Your task to perform on an android device: Check the weather Image 0: 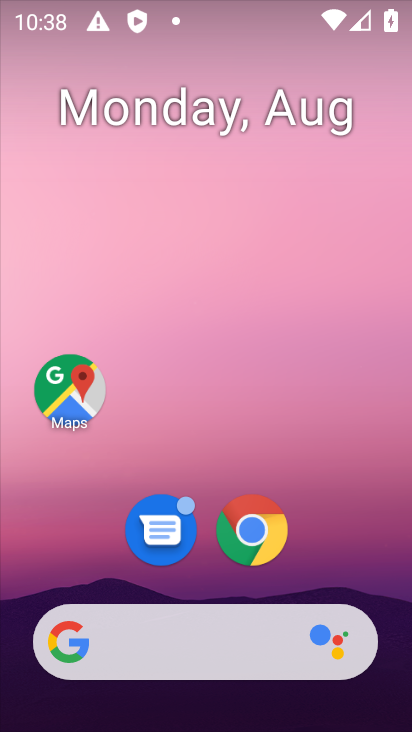
Step 0: click (173, 221)
Your task to perform on an android device: Check the weather Image 1: 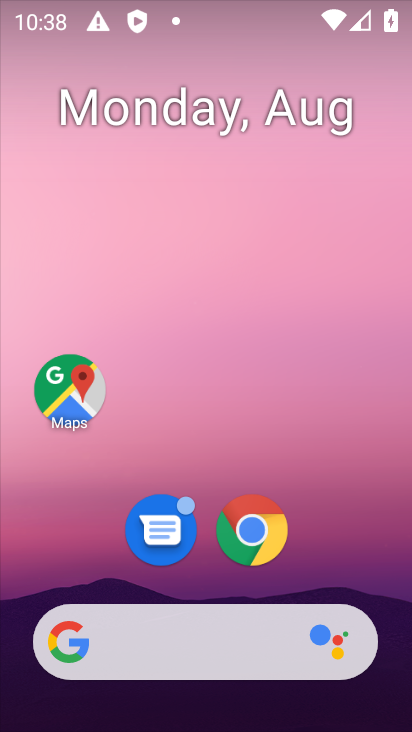
Step 1: drag from (203, 502) to (186, 161)
Your task to perform on an android device: Check the weather Image 2: 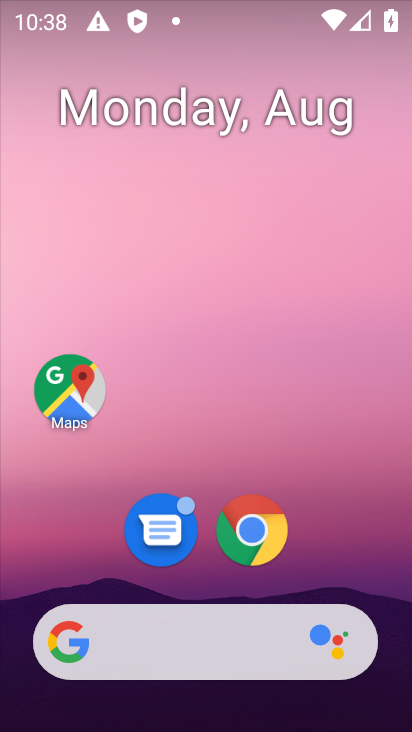
Step 2: drag from (249, 510) to (229, 121)
Your task to perform on an android device: Check the weather Image 3: 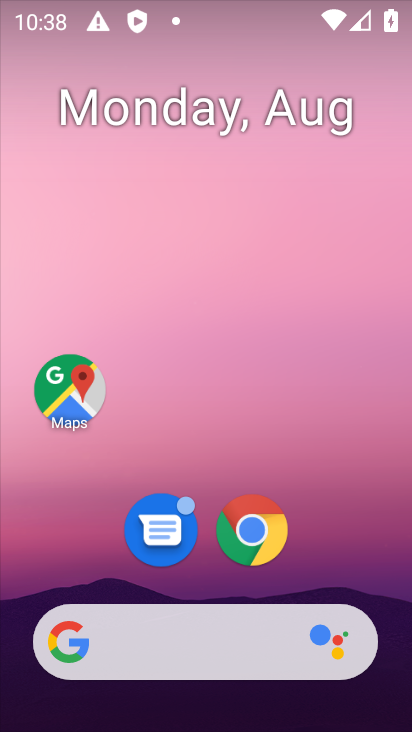
Step 3: drag from (244, 429) to (231, 177)
Your task to perform on an android device: Check the weather Image 4: 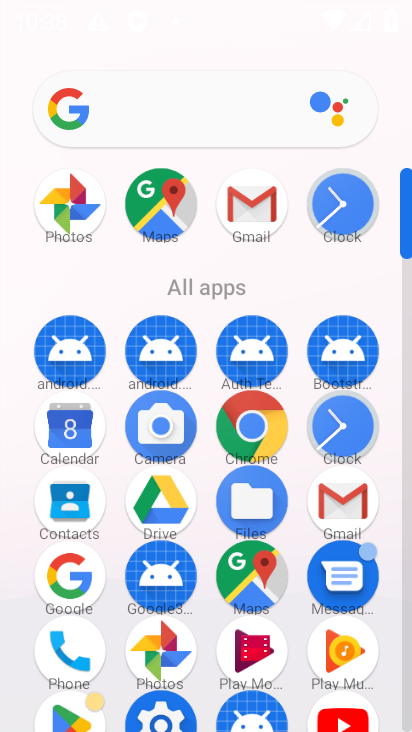
Step 4: drag from (204, 530) to (204, 264)
Your task to perform on an android device: Check the weather Image 5: 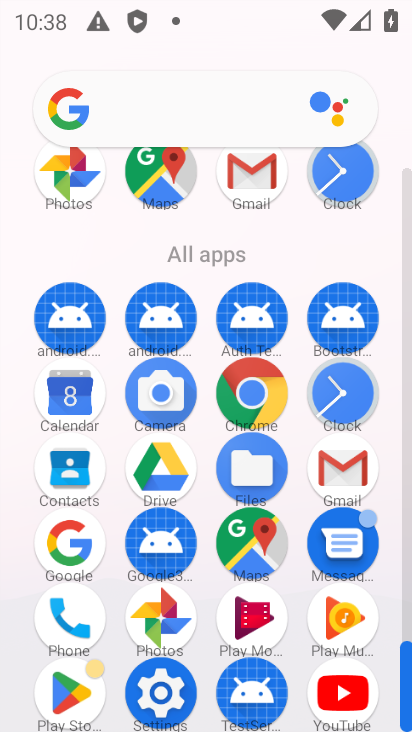
Step 5: click (249, 414)
Your task to perform on an android device: Check the weather Image 6: 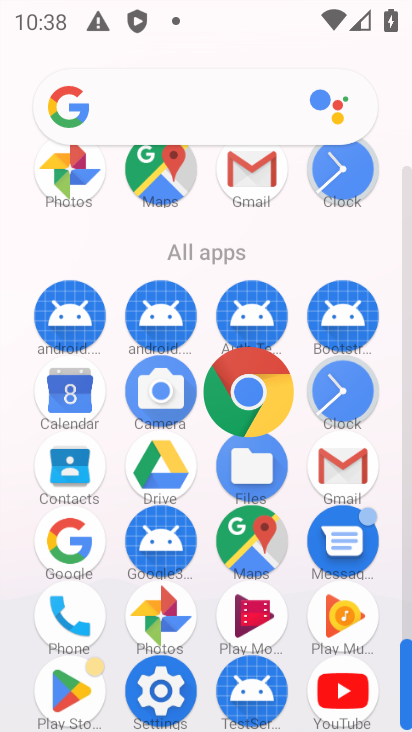
Step 6: click (245, 399)
Your task to perform on an android device: Check the weather Image 7: 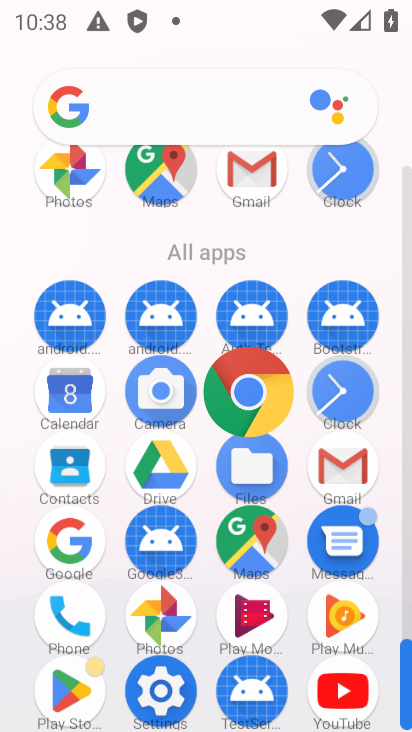
Step 7: click (246, 397)
Your task to perform on an android device: Check the weather Image 8: 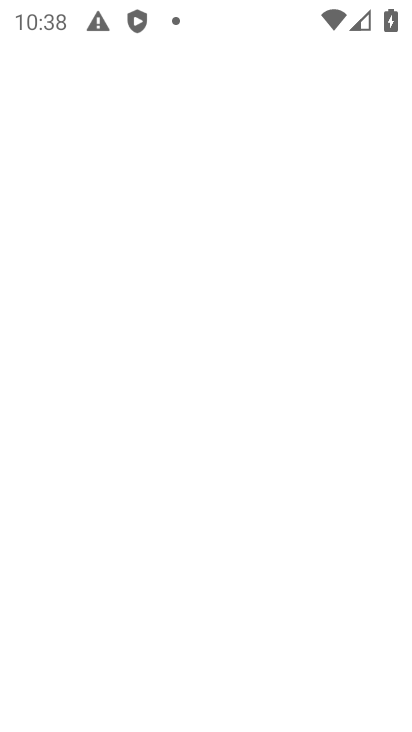
Step 8: click (246, 397)
Your task to perform on an android device: Check the weather Image 9: 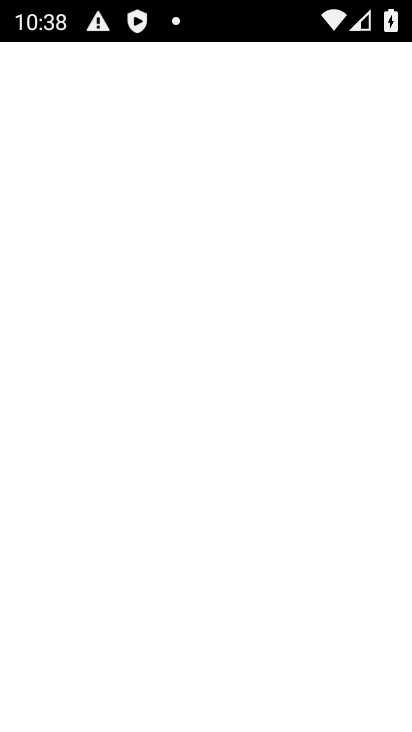
Step 9: click (245, 396)
Your task to perform on an android device: Check the weather Image 10: 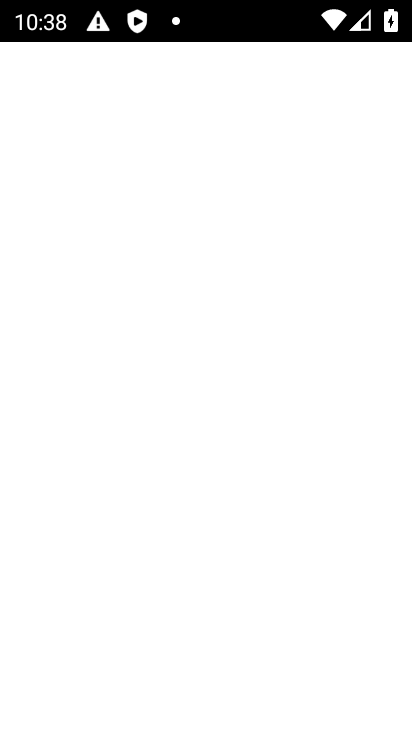
Step 10: click (245, 396)
Your task to perform on an android device: Check the weather Image 11: 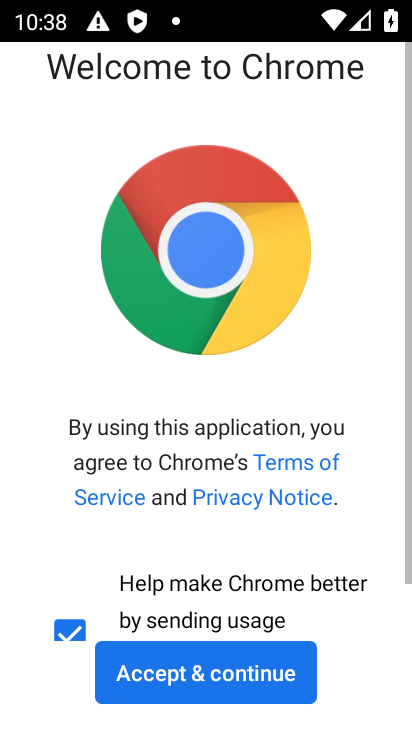
Step 11: click (222, 660)
Your task to perform on an android device: Check the weather Image 12: 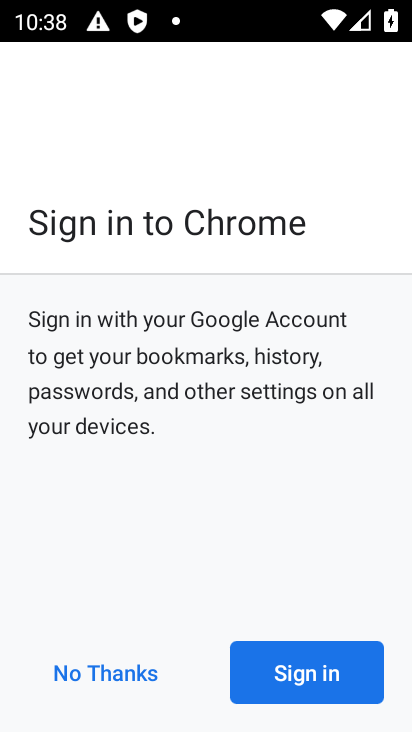
Step 12: click (267, 673)
Your task to perform on an android device: Check the weather Image 13: 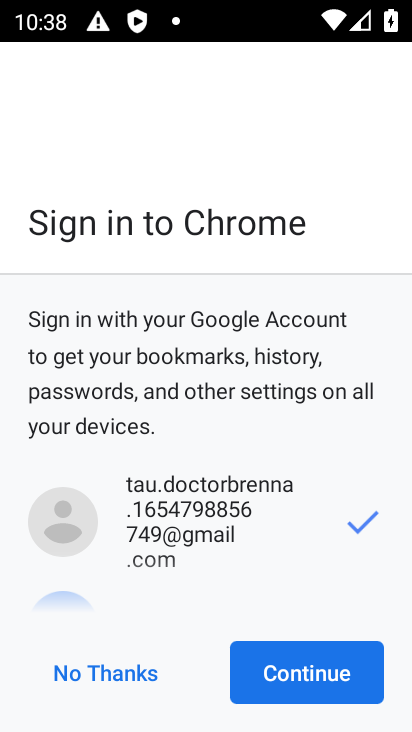
Step 13: click (275, 660)
Your task to perform on an android device: Check the weather Image 14: 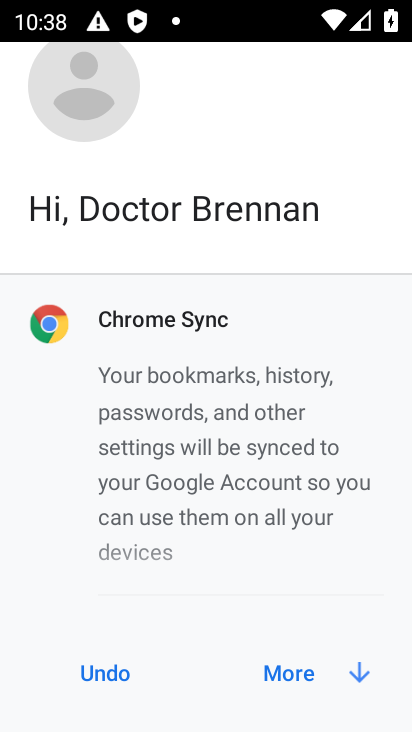
Step 14: click (276, 667)
Your task to perform on an android device: Check the weather Image 15: 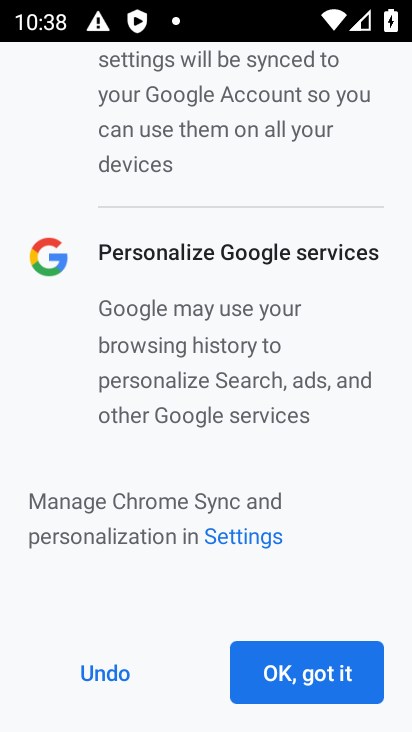
Step 15: click (82, 662)
Your task to perform on an android device: Check the weather Image 16: 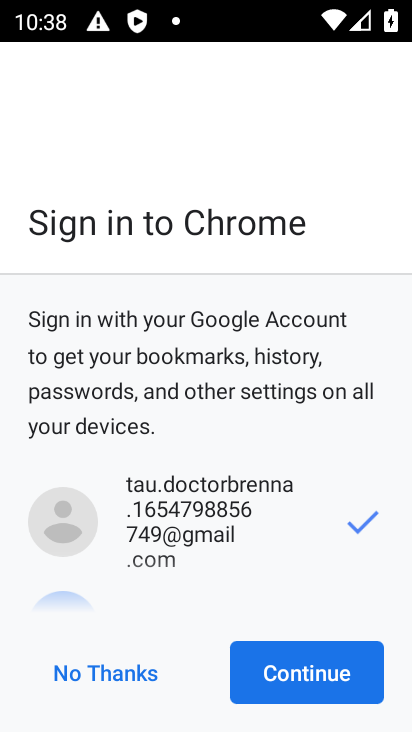
Step 16: click (101, 672)
Your task to perform on an android device: Check the weather Image 17: 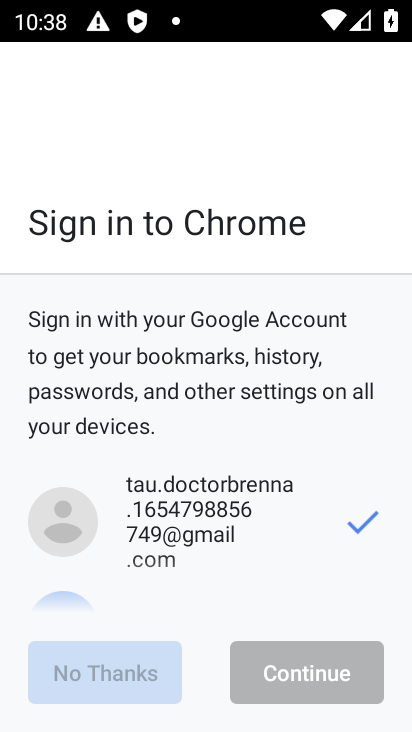
Step 17: click (101, 672)
Your task to perform on an android device: Check the weather Image 18: 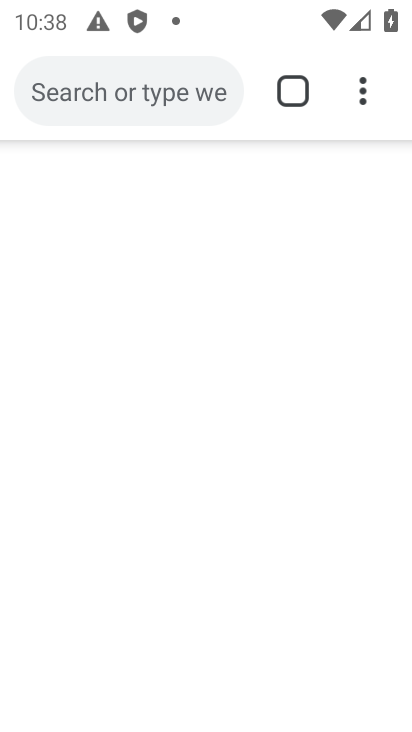
Step 18: click (114, 105)
Your task to perform on an android device: Check the weather Image 19: 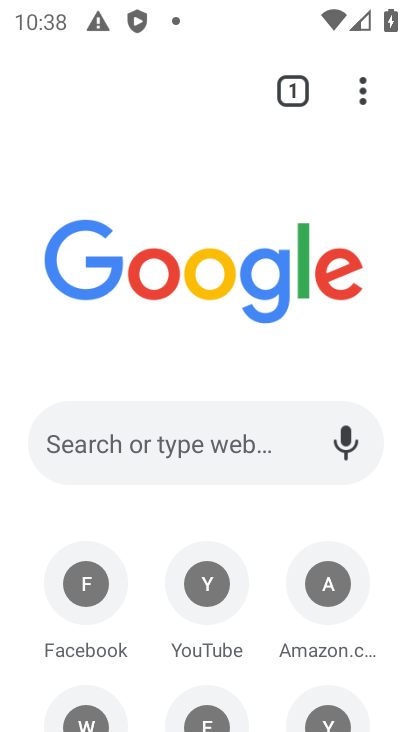
Step 19: click (114, 105)
Your task to perform on an android device: Check the weather Image 20: 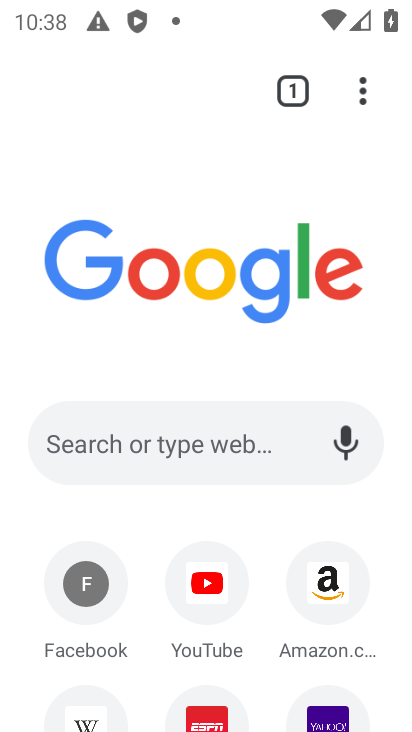
Step 20: click (149, 451)
Your task to perform on an android device: Check the weather Image 21: 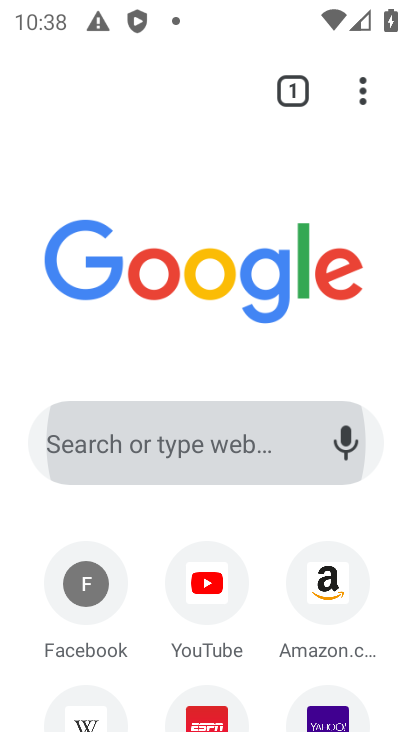
Step 21: click (149, 452)
Your task to perform on an android device: Check the weather Image 22: 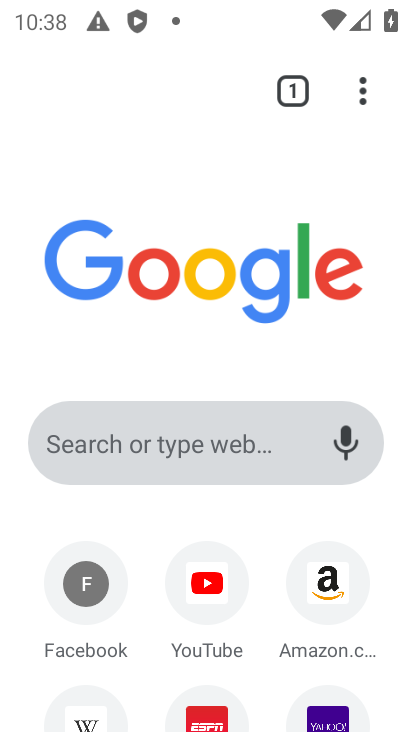
Step 22: click (148, 453)
Your task to perform on an android device: Check the weather Image 23: 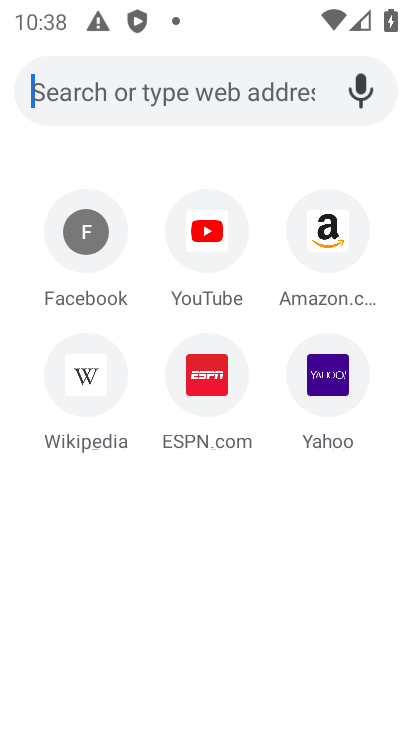
Step 23: click (148, 453)
Your task to perform on an android device: Check the weather Image 24: 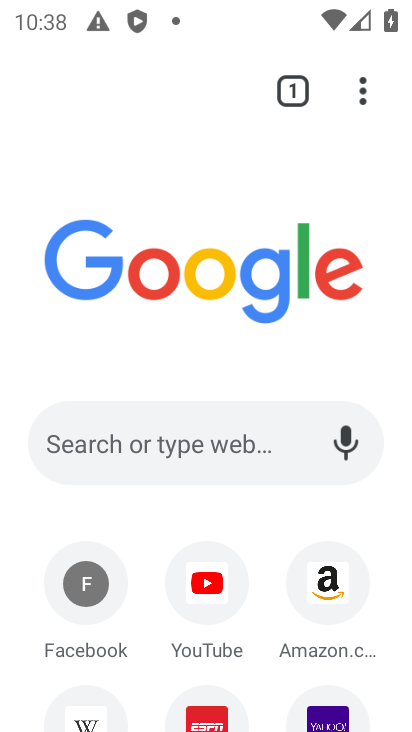
Step 24: click (126, 457)
Your task to perform on an android device: Check the weather Image 25: 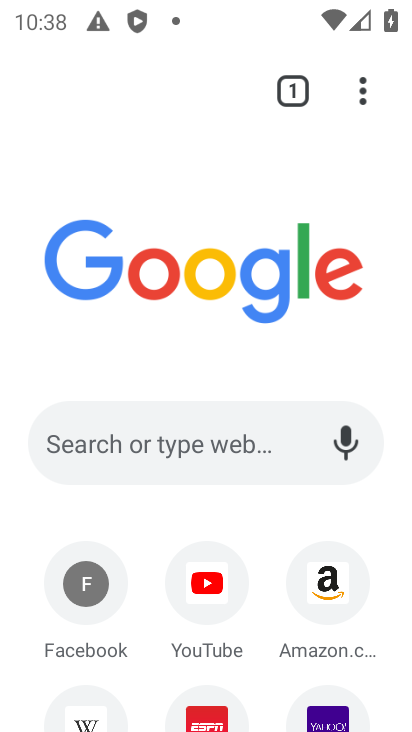
Step 25: click (126, 457)
Your task to perform on an android device: Check the weather Image 26: 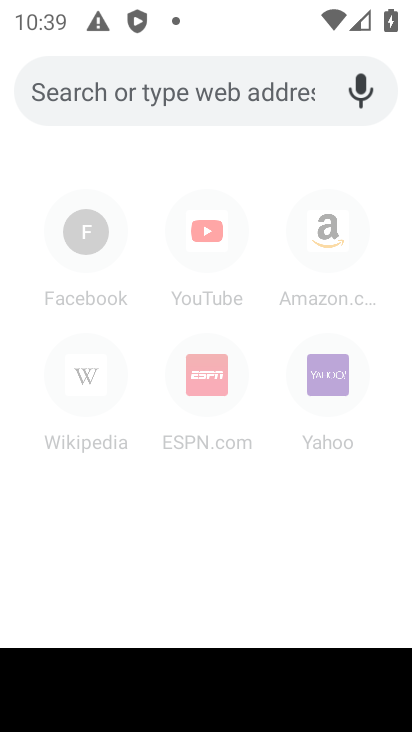
Step 26: type "weather for today"
Your task to perform on an android device: Check the weather Image 27: 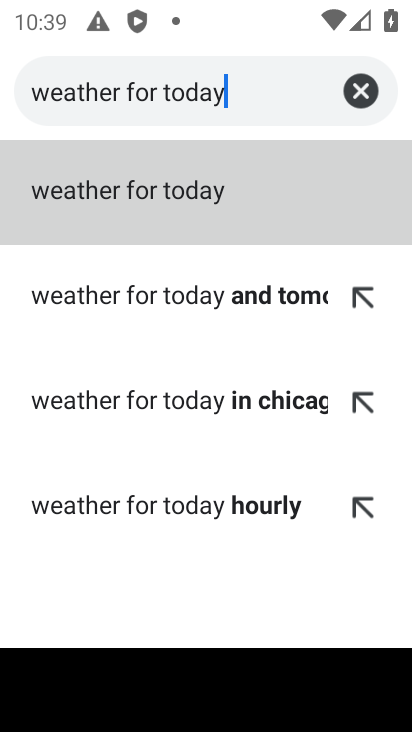
Step 27: click (130, 194)
Your task to perform on an android device: Check the weather Image 28: 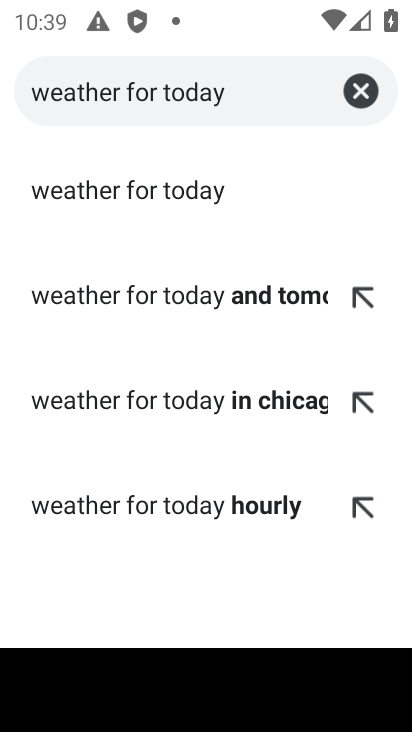
Step 28: click (130, 193)
Your task to perform on an android device: Check the weather Image 29: 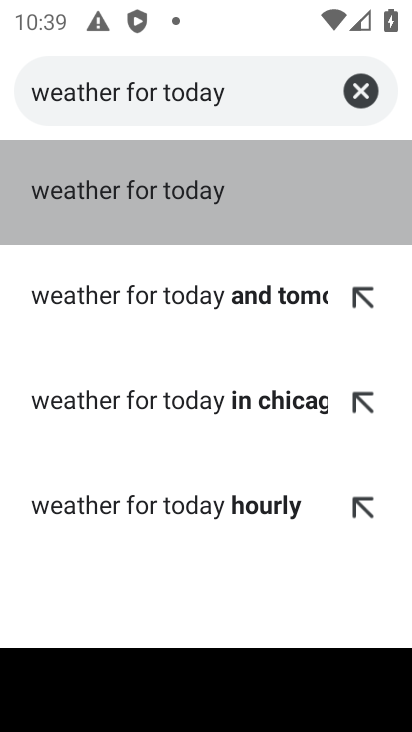
Step 29: click (130, 193)
Your task to perform on an android device: Check the weather Image 30: 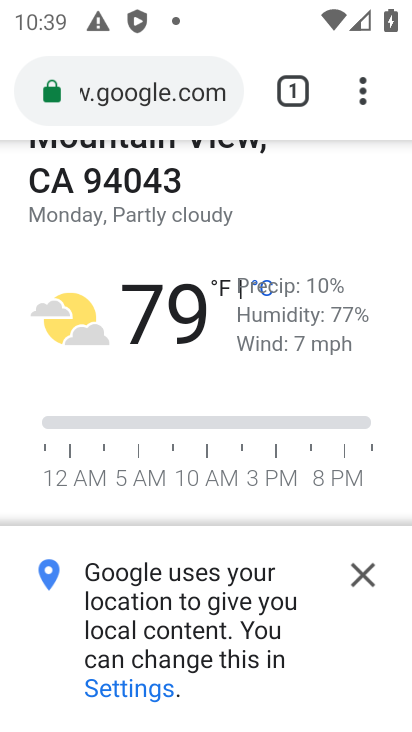
Step 30: task complete